Your task to perform on an android device: remove spam from my inbox in the gmail app Image 0: 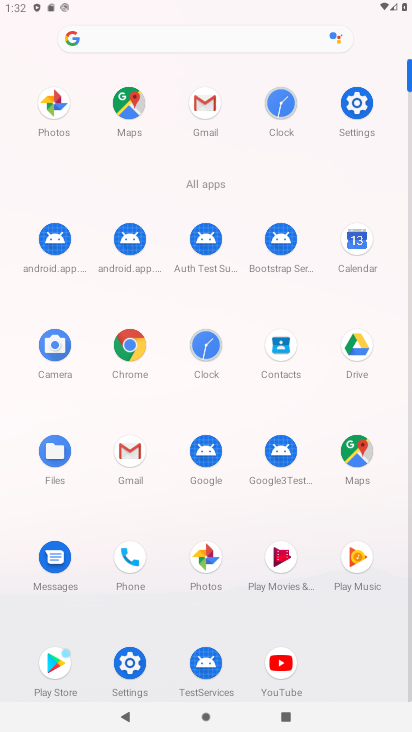
Step 0: click (117, 458)
Your task to perform on an android device: remove spam from my inbox in the gmail app Image 1: 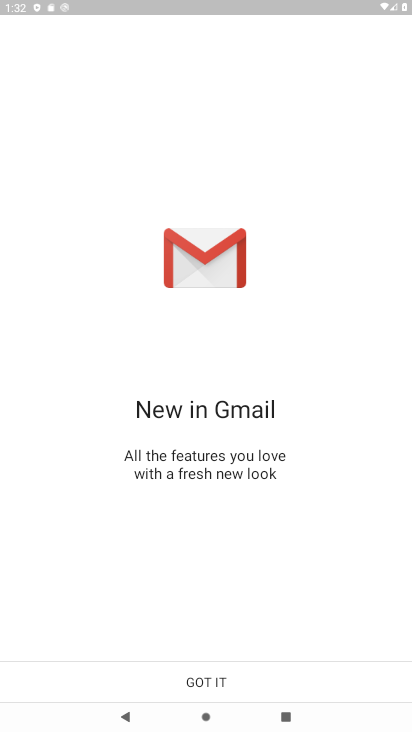
Step 1: click (202, 677)
Your task to perform on an android device: remove spam from my inbox in the gmail app Image 2: 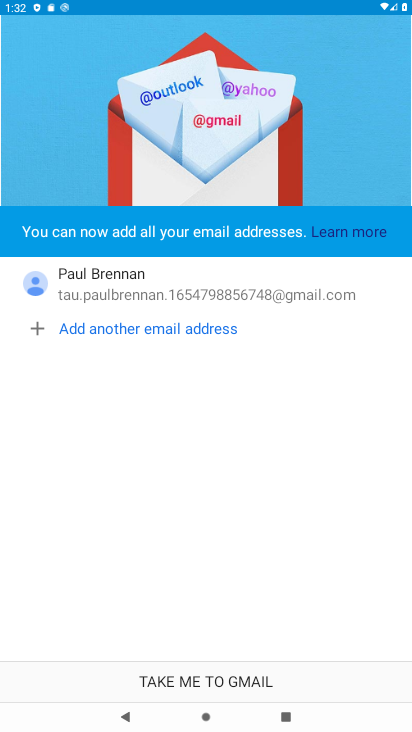
Step 2: click (226, 680)
Your task to perform on an android device: remove spam from my inbox in the gmail app Image 3: 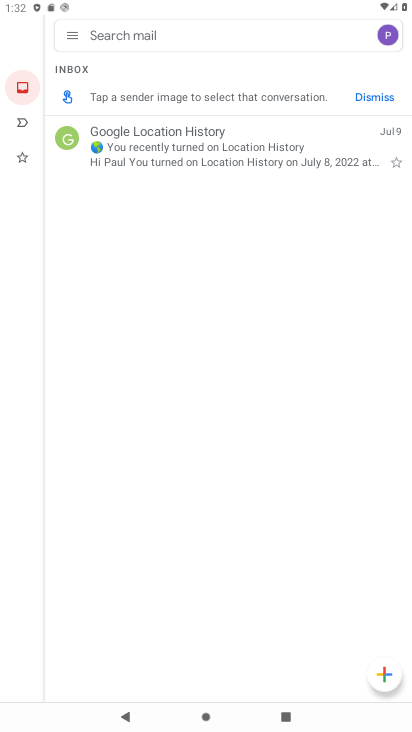
Step 3: click (73, 38)
Your task to perform on an android device: remove spam from my inbox in the gmail app Image 4: 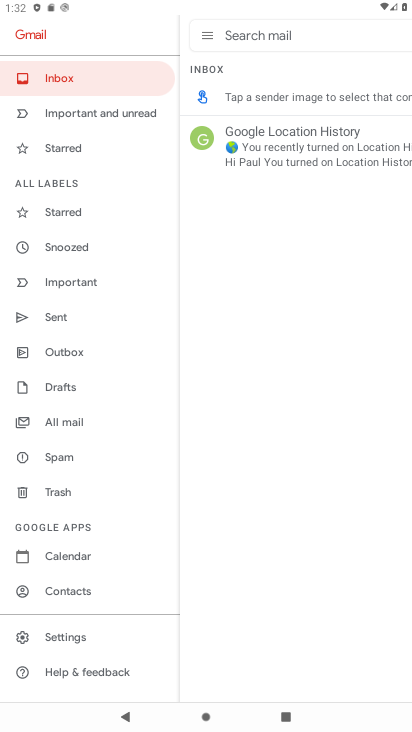
Step 4: click (64, 456)
Your task to perform on an android device: remove spam from my inbox in the gmail app Image 5: 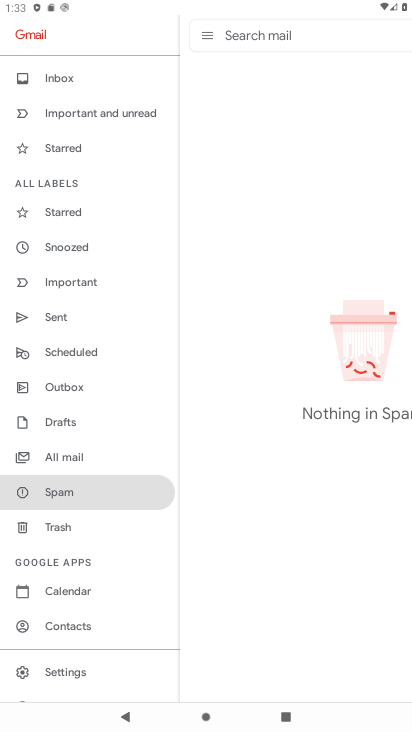
Step 5: task complete